Your task to perform on an android device: Is it going to rain tomorrow? Image 0: 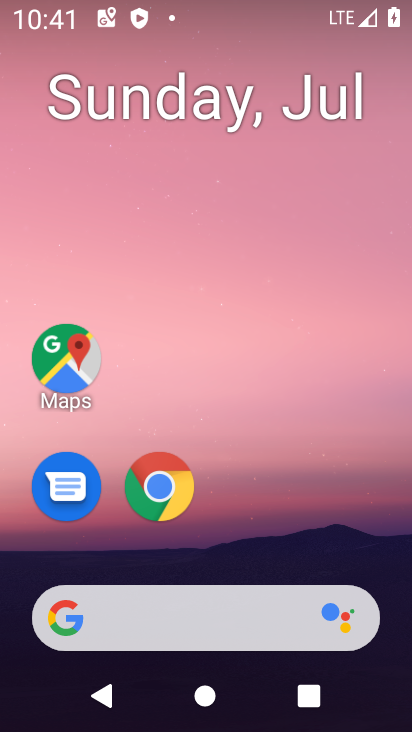
Step 0: click (197, 627)
Your task to perform on an android device: Is it going to rain tomorrow? Image 1: 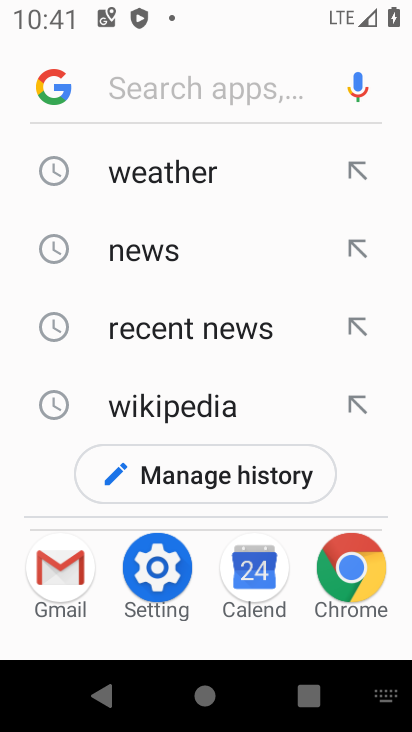
Step 1: click (203, 182)
Your task to perform on an android device: Is it going to rain tomorrow? Image 2: 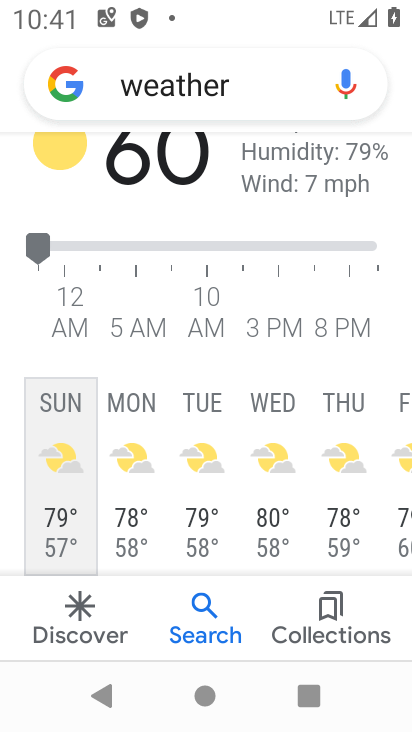
Step 2: click (208, 405)
Your task to perform on an android device: Is it going to rain tomorrow? Image 3: 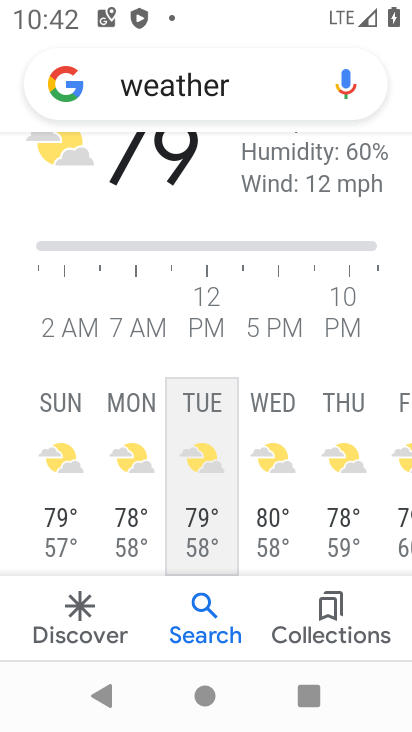
Step 3: task complete